Your task to perform on an android device: What's the weather today? Image 0: 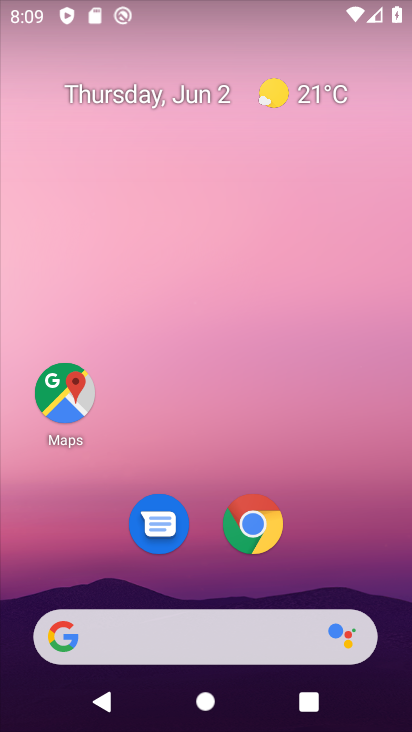
Step 0: click (307, 93)
Your task to perform on an android device: What's the weather today? Image 1: 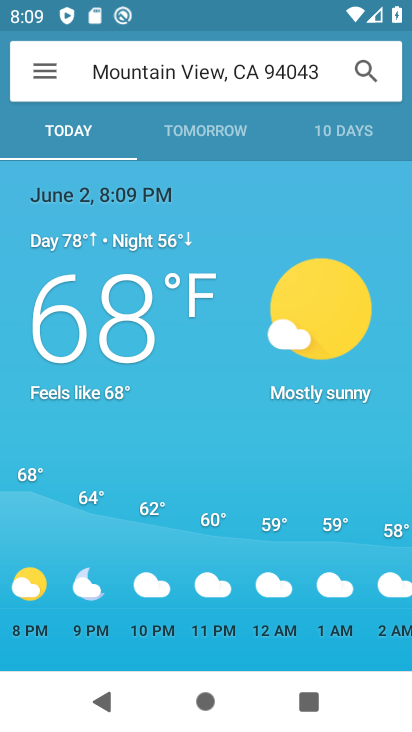
Step 1: task complete